Your task to perform on an android device: Go to ESPN.com Image 0: 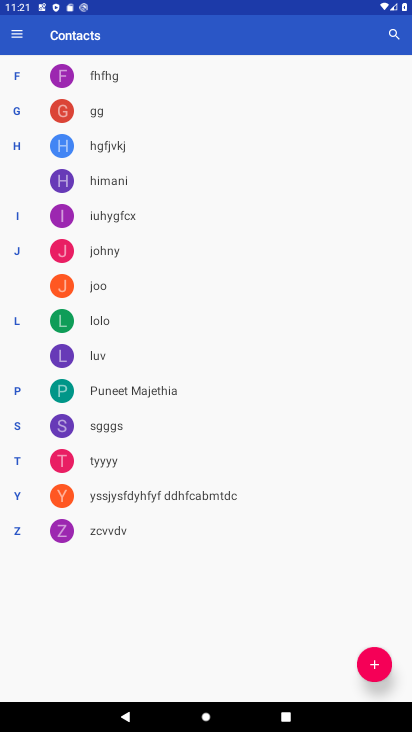
Step 0: press home button
Your task to perform on an android device: Go to ESPN.com Image 1: 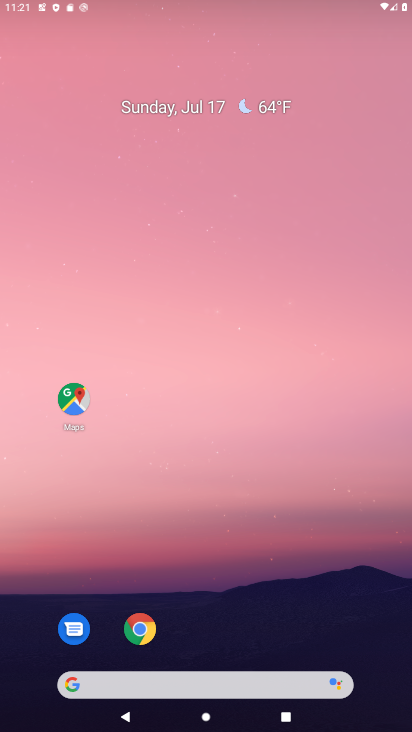
Step 1: drag from (253, 634) to (203, 157)
Your task to perform on an android device: Go to ESPN.com Image 2: 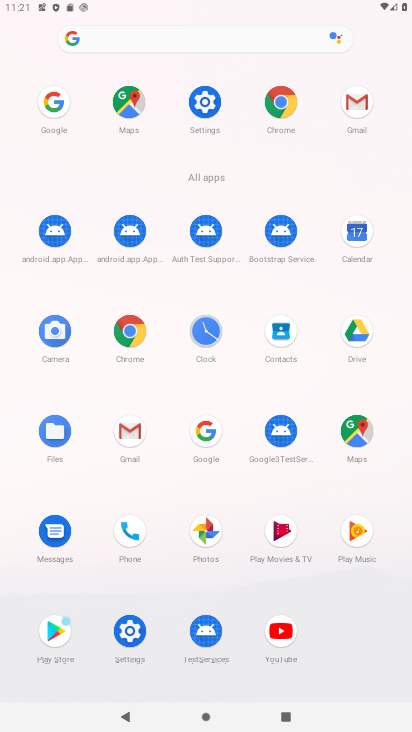
Step 2: click (282, 100)
Your task to perform on an android device: Go to ESPN.com Image 3: 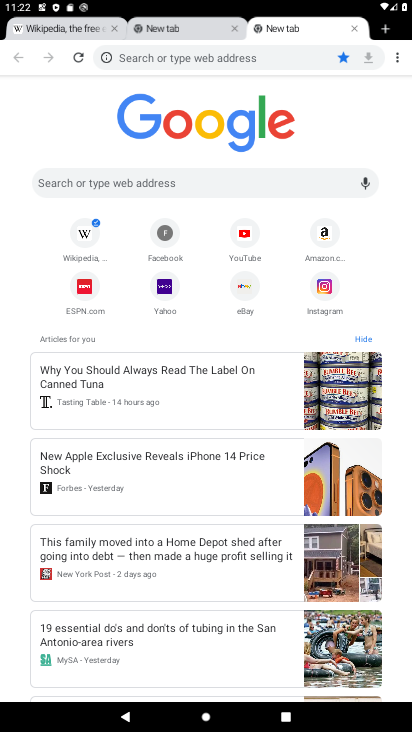
Step 3: click (87, 275)
Your task to perform on an android device: Go to ESPN.com Image 4: 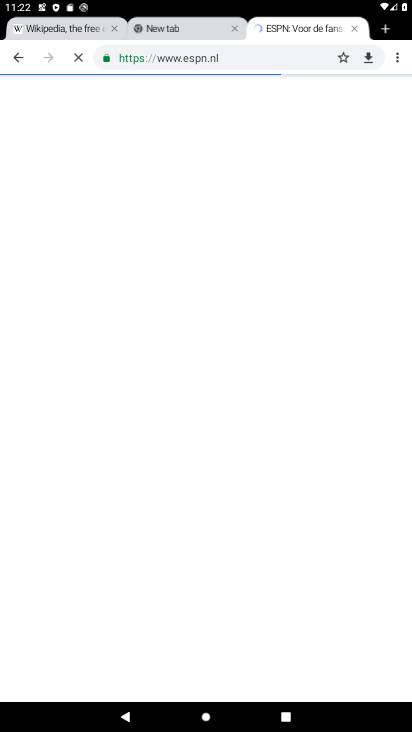
Step 4: type ""
Your task to perform on an android device: Go to ESPN.com Image 5: 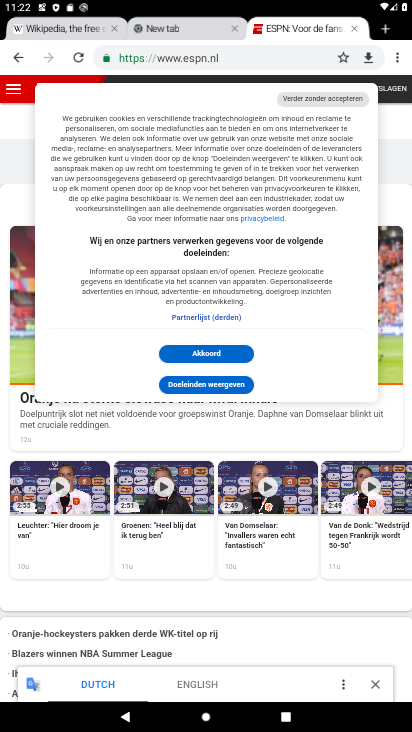
Step 5: task complete